Your task to perform on an android device: open device folders in google photos Image 0: 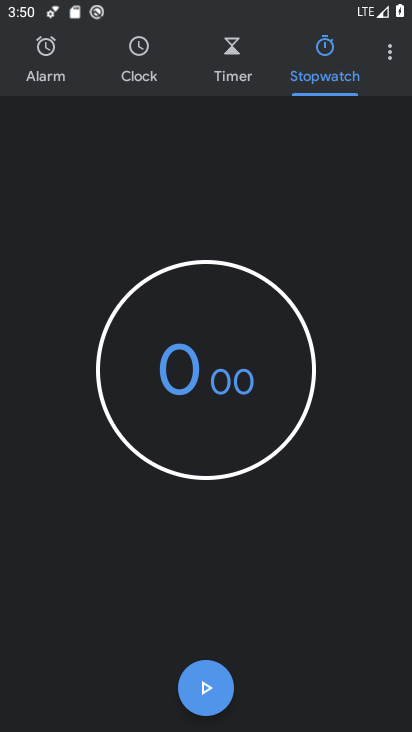
Step 0: press home button
Your task to perform on an android device: open device folders in google photos Image 1: 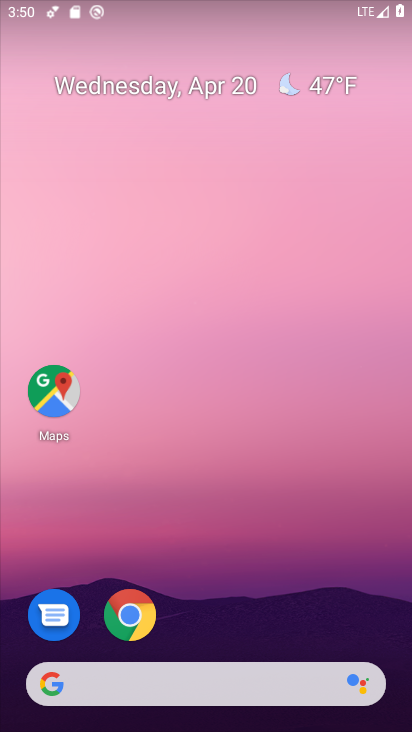
Step 1: drag from (229, 610) to (183, 128)
Your task to perform on an android device: open device folders in google photos Image 2: 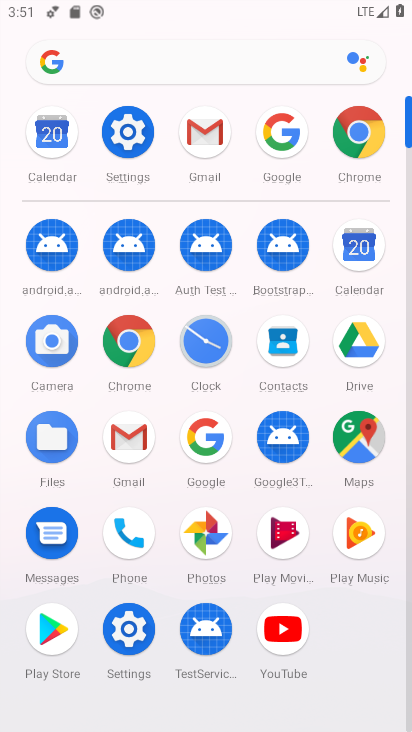
Step 2: click (194, 532)
Your task to perform on an android device: open device folders in google photos Image 3: 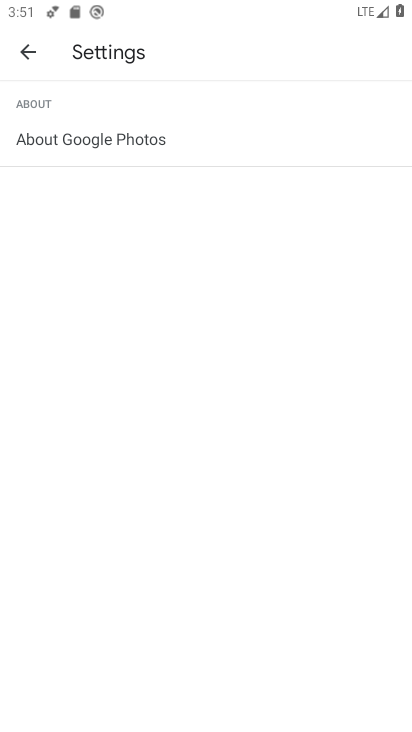
Step 3: click (30, 52)
Your task to perform on an android device: open device folders in google photos Image 4: 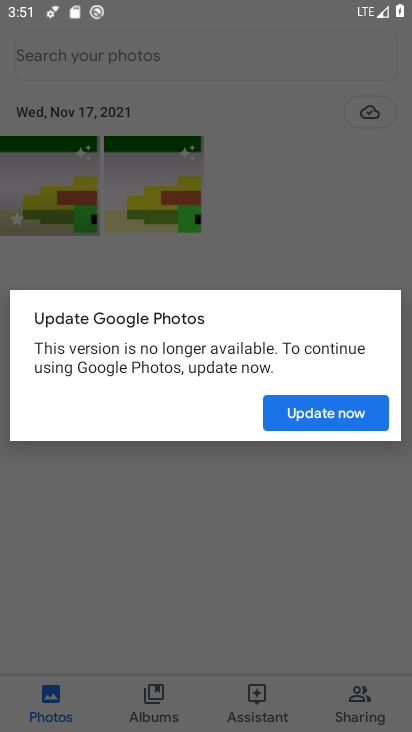
Step 4: drag from (30, 52) to (7, 88)
Your task to perform on an android device: open device folders in google photos Image 5: 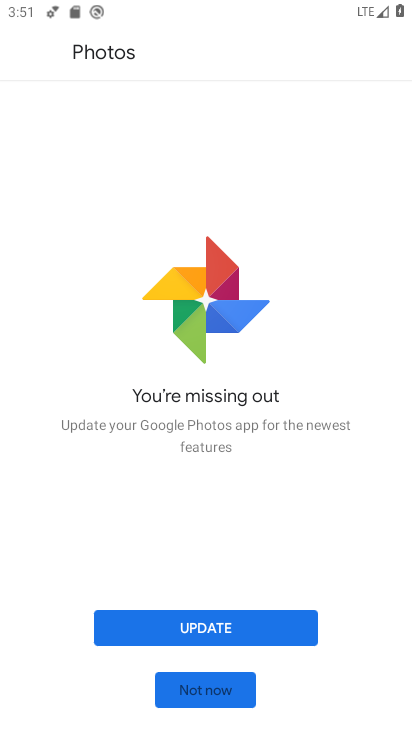
Step 5: click (198, 695)
Your task to perform on an android device: open device folders in google photos Image 6: 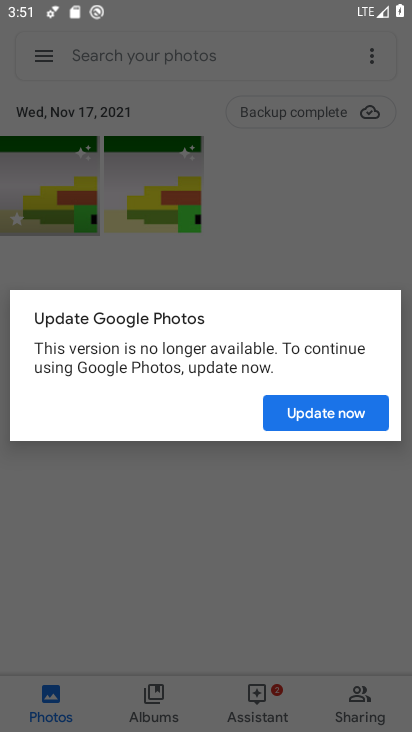
Step 6: click (285, 528)
Your task to perform on an android device: open device folders in google photos Image 7: 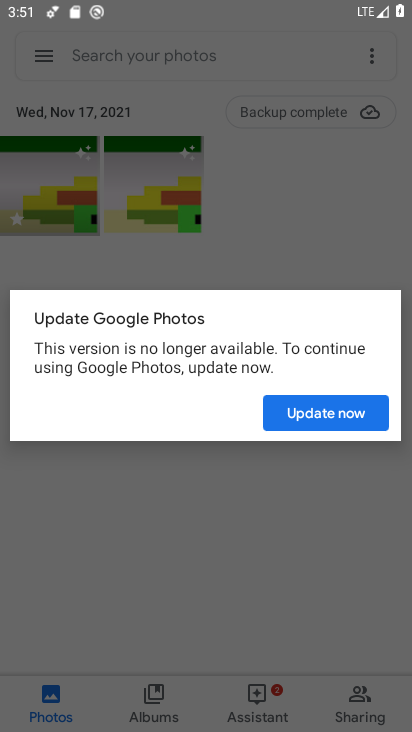
Step 7: click (339, 414)
Your task to perform on an android device: open device folders in google photos Image 8: 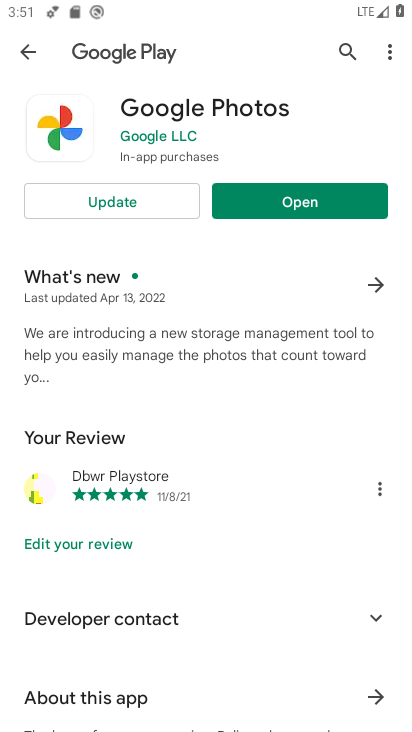
Step 8: click (254, 198)
Your task to perform on an android device: open device folders in google photos Image 9: 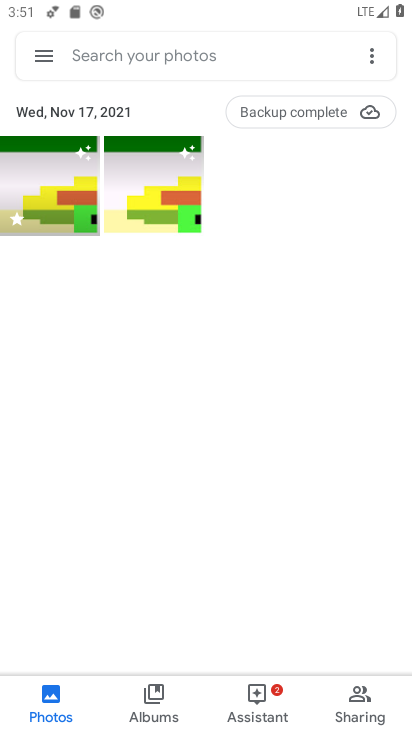
Step 9: click (41, 67)
Your task to perform on an android device: open device folders in google photos Image 10: 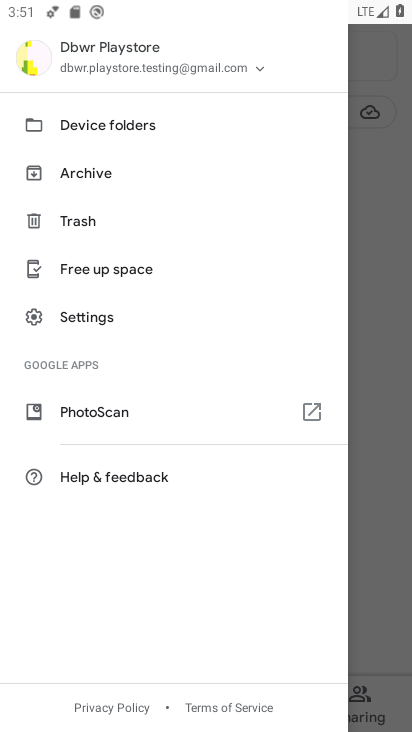
Step 10: click (124, 123)
Your task to perform on an android device: open device folders in google photos Image 11: 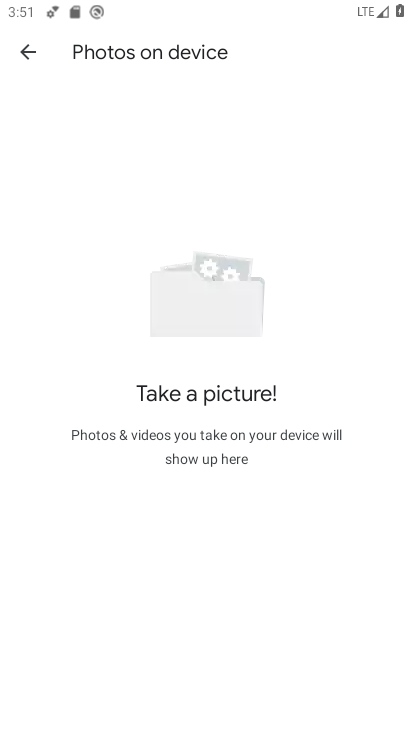
Step 11: task complete